Your task to perform on an android device: What is the recent news? Image 0: 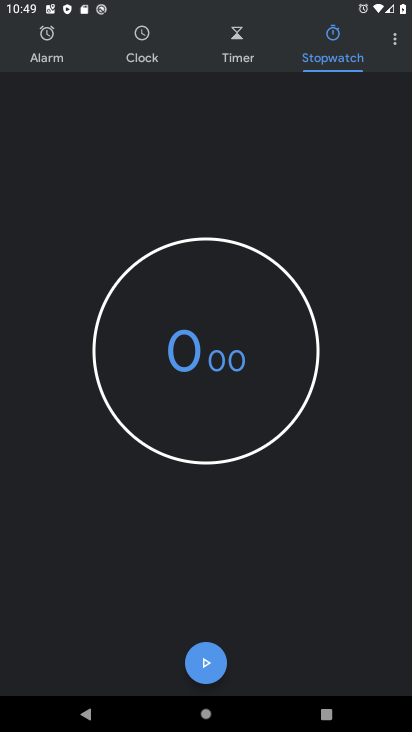
Step 0: press home button
Your task to perform on an android device: What is the recent news? Image 1: 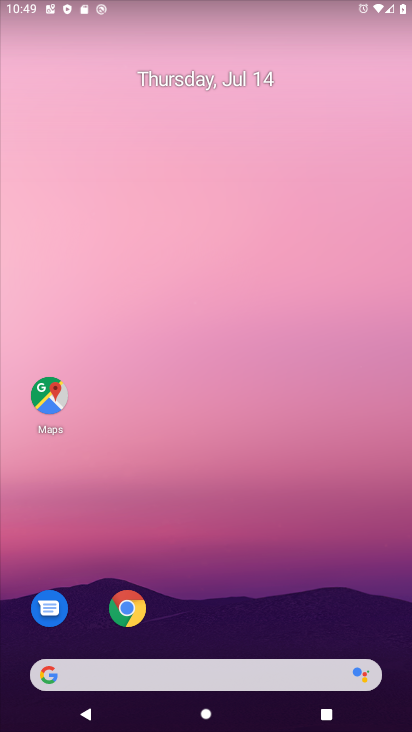
Step 1: task complete